Your task to perform on an android device: change keyboard looks Image 0: 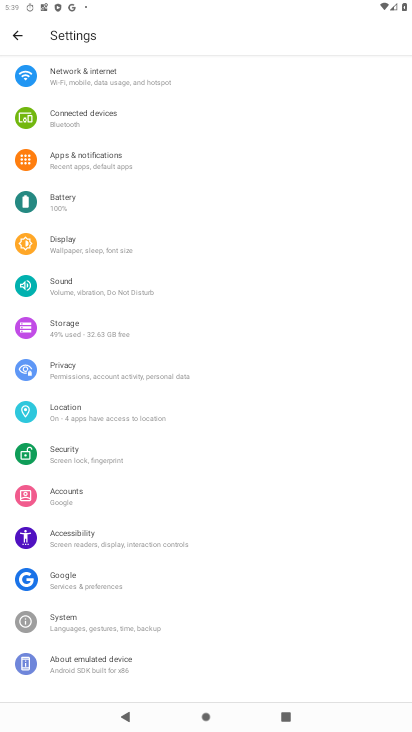
Step 0: drag from (153, 638) to (242, 357)
Your task to perform on an android device: change keyboard looks Image 1: 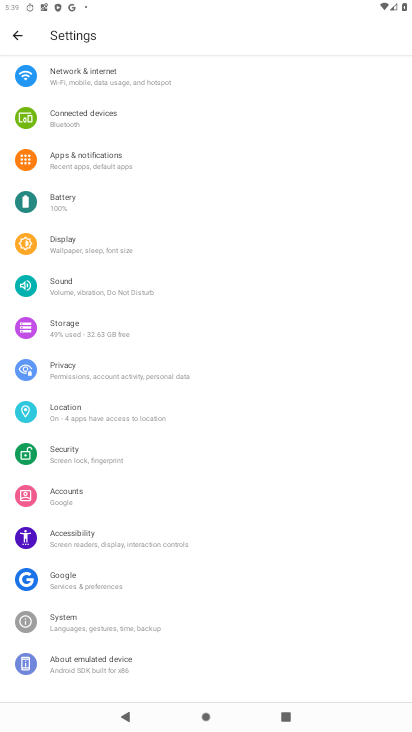
Step 1: click (98, 624)
Your task to perform on an android device: change keyboard looks Image 2: 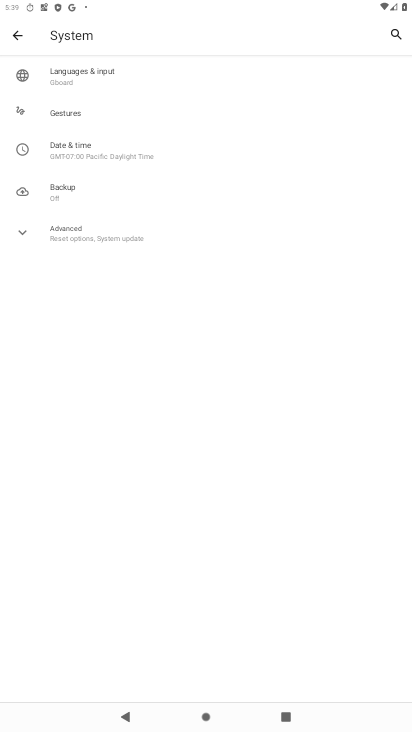
Step 2: click (100, 76)
Your task to perform on an android device: change keyboard looks Image 3: 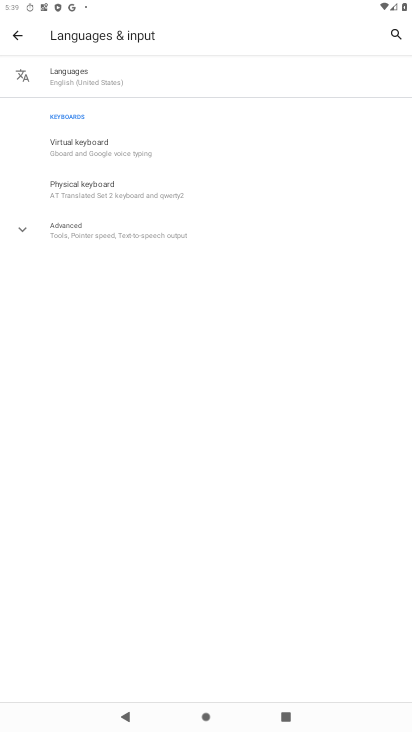
Step 3: click (101, 147)
Your task to perform on an android device: change keyboard looks Image 4: 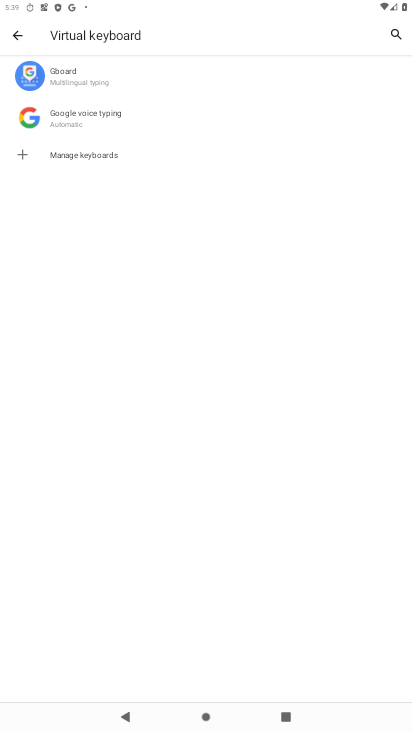
Step 4: click (95, 90)
Your task to perform on an android device: change keyboard looks Image 5: 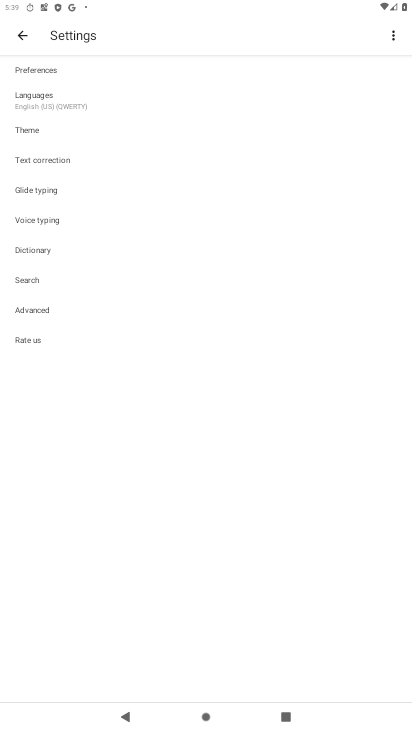
Step 5: click (40, 122)
Your task to perform on an android device: change keyboard looks Image 6: 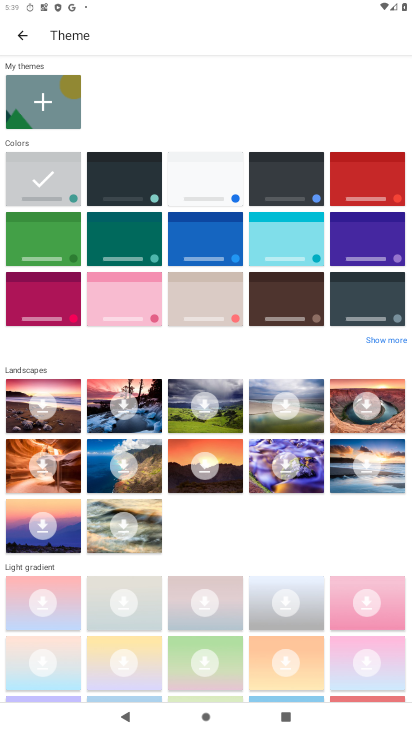
Step 6: click (220, 236)
Your task to perform on an android device: change keyboard looks Image 7: 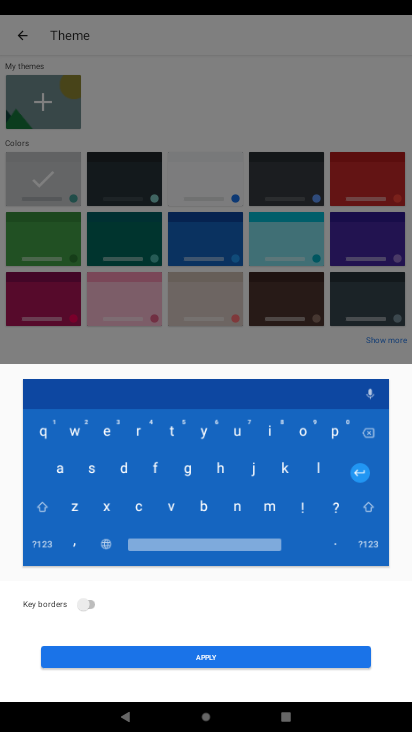
Step 7: click (292, 663)
Your task to perform on an android device: change keyboard looks Image 8: 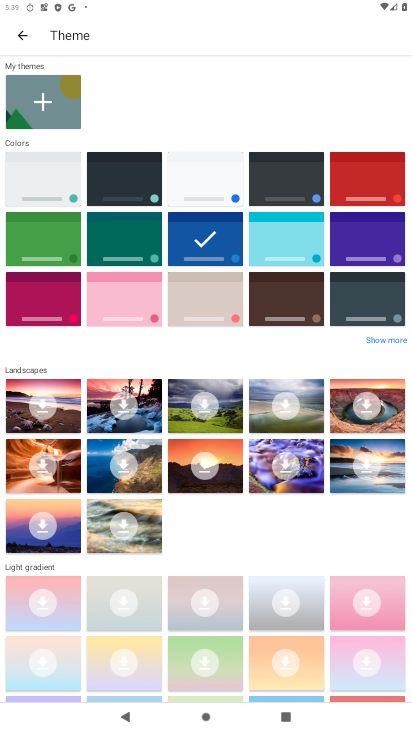
Step 8: task complete